Your task to perform on an android device: What's on my calendar tomorrow? Image 0: 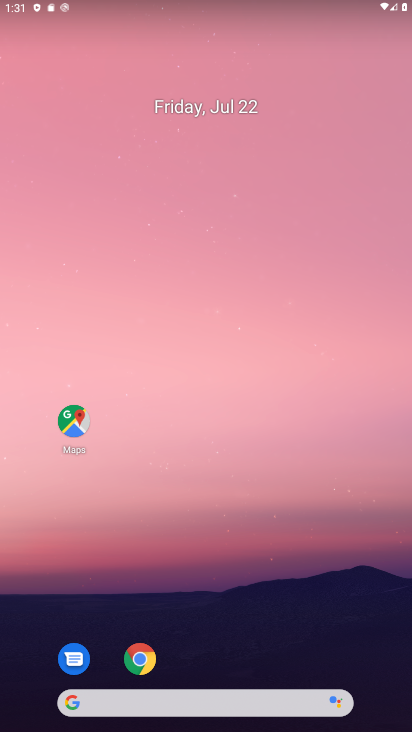
Step 0: drag from (322, 647) to (315, 164)
Your task to perform on an android device: What's on my calendar tomorrow? Image 1: 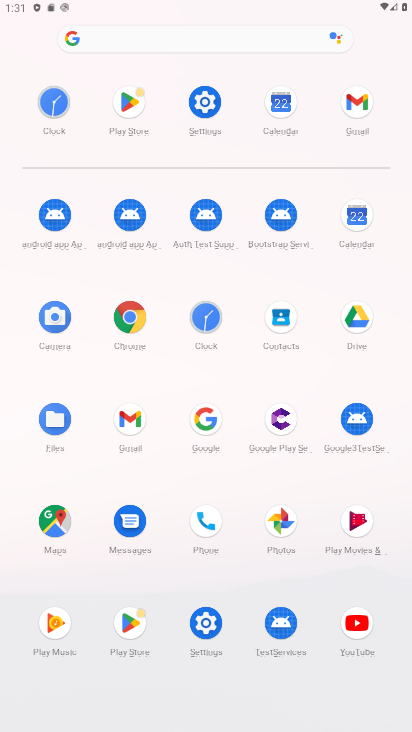
Step 1: click (272, 125)
Your task to perform on an android device: What's on my calendar tomorrow? Image 2: 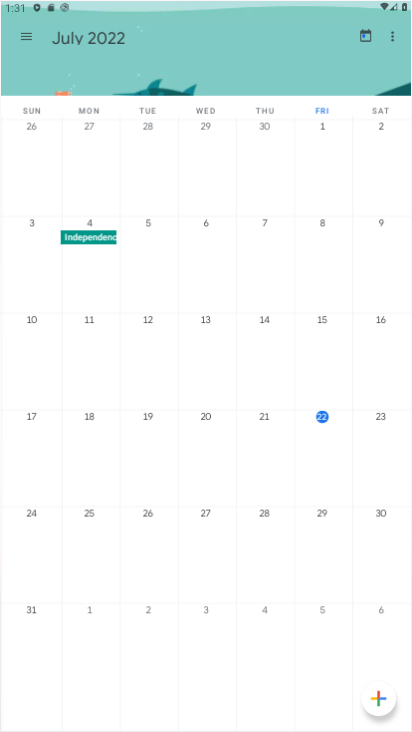
Step 2: task complete